Your task to perform on an android device: Go to eBay Image 0: 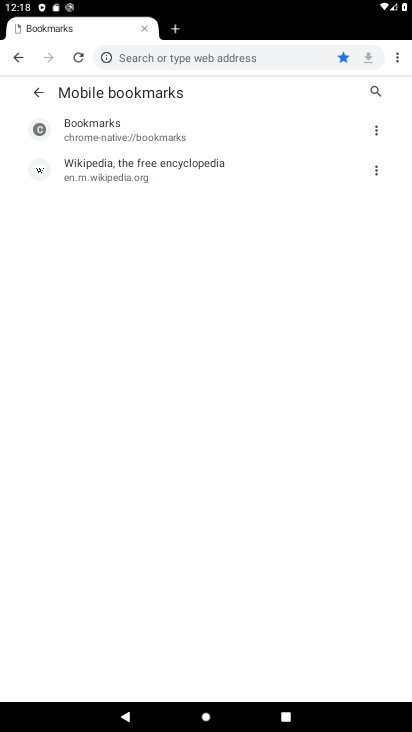
Step 0: click (284, 53)
Your task to perform on an android device: Go to eBay Image 1: 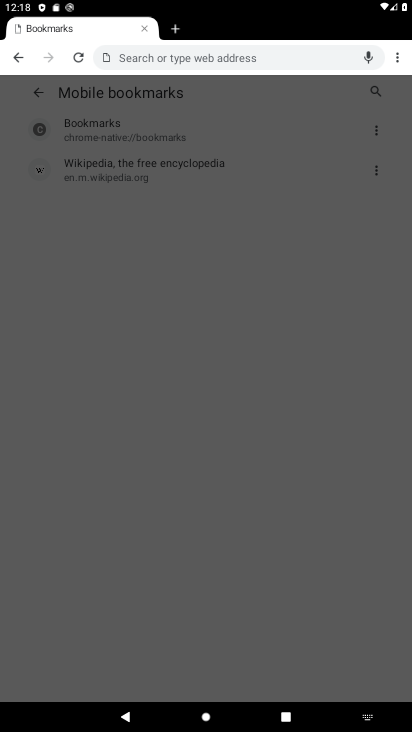
Step 1: type "ebay"
Your task to perform on an android device: Go to eBay Image 2: 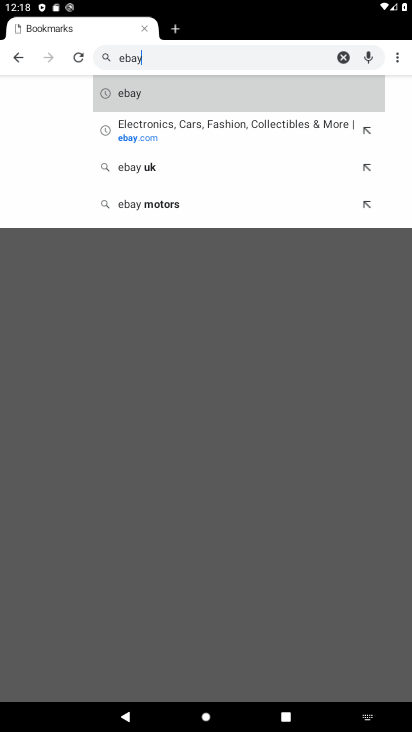
Step 2: click (129, 130)
Your task to perform on an android device: Go to eBay Image 3: 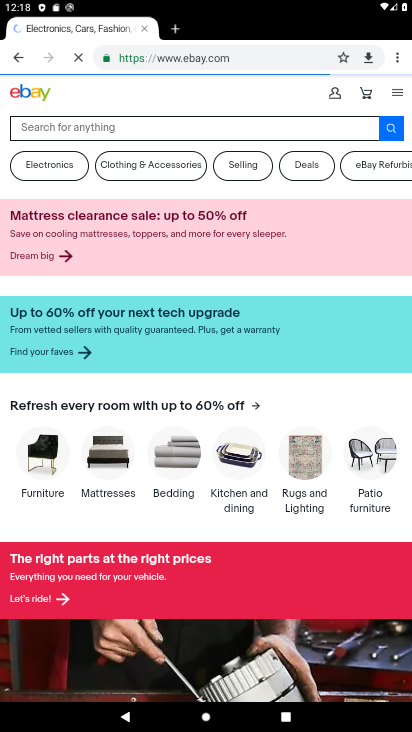
Step 3: task complete